Your task to perform on an android device: check the backup settings in the google photos Image 0: 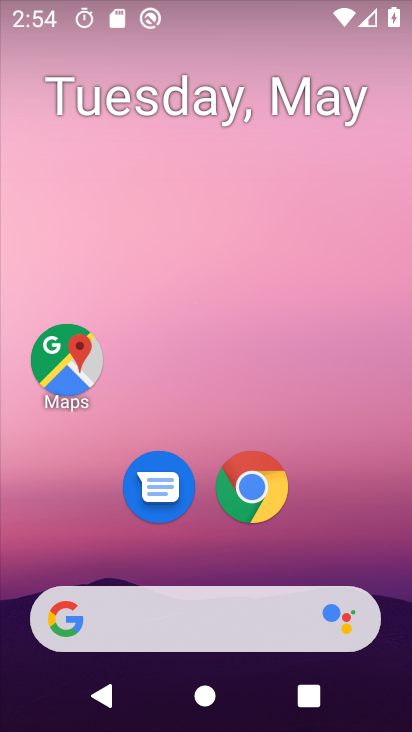
Step 0: drag from (402, 607) to (389, 261)
Your task to perform on an android device: check the backup settings in the google photos Image 1: 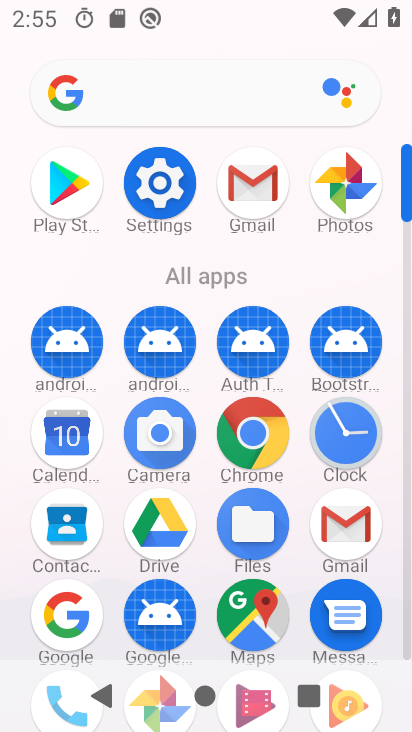
Step 1: click (411, 158)
Your task to perform on an android device: check the backup settings in the google photos Image 2: 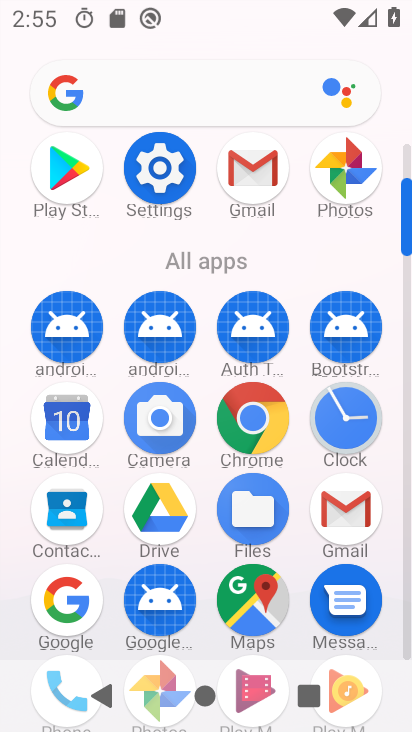
Step 2: click (364, 156)
Your task to perform on an android device: check the backup settings in the google photos Image 3: 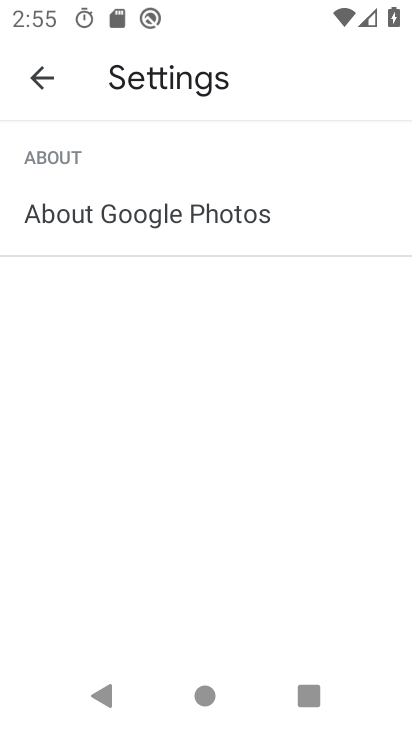
Step 3: click (34, 82)
Your task to perform on an android device: check the backup settings in the google photos Image 4: 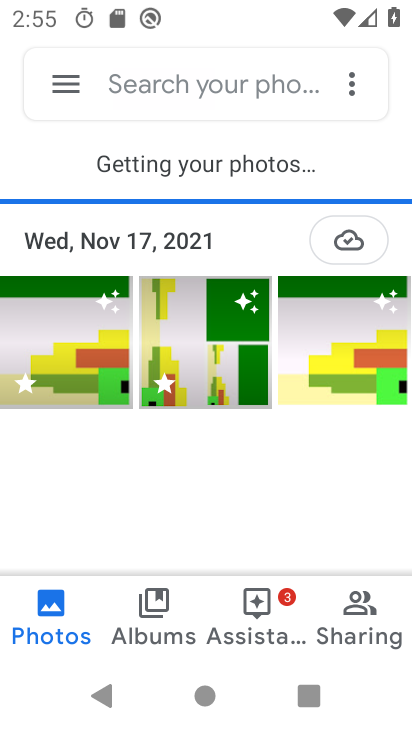
Step 4: click (60, 79)
Your task to perform on an android device: check the backup settings in the google photos Image 5: 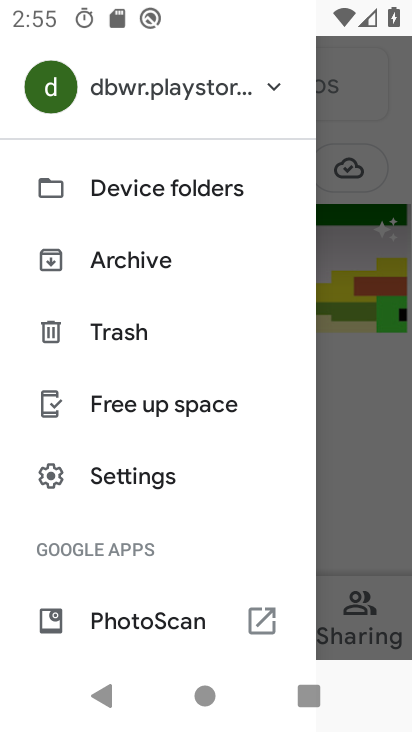
Step 5: click (115, 469)
Your task to perform on an android device: check the backup settings in the google photos Image 6: 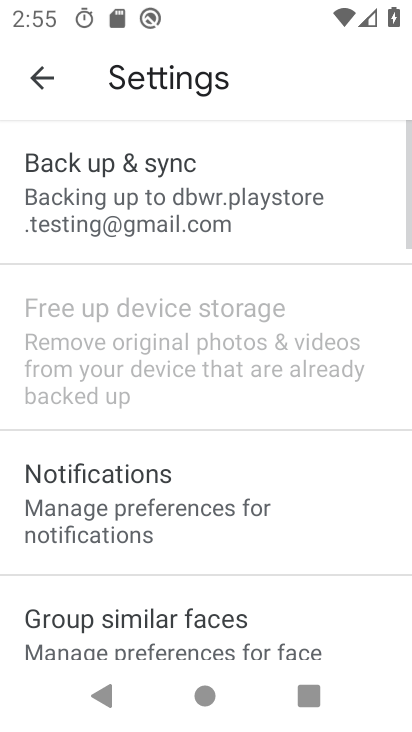
Step 6: click (146, 157)
Your task to perform on an android device: check the backup settings in the google photos Image 7: 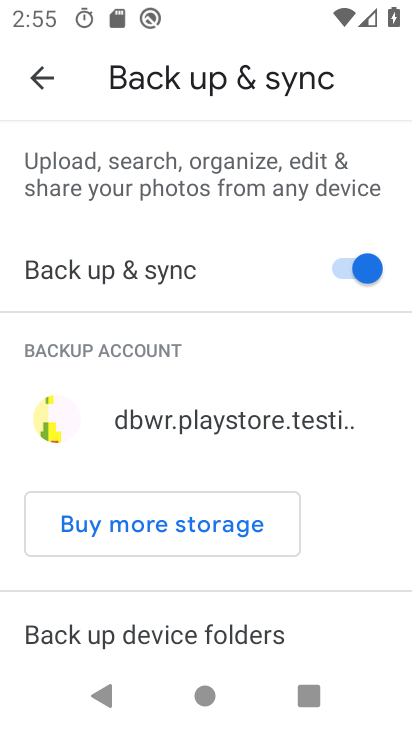
Step 7: task complete